Your task to perform on an android device: Do I have any events today? Image 0: 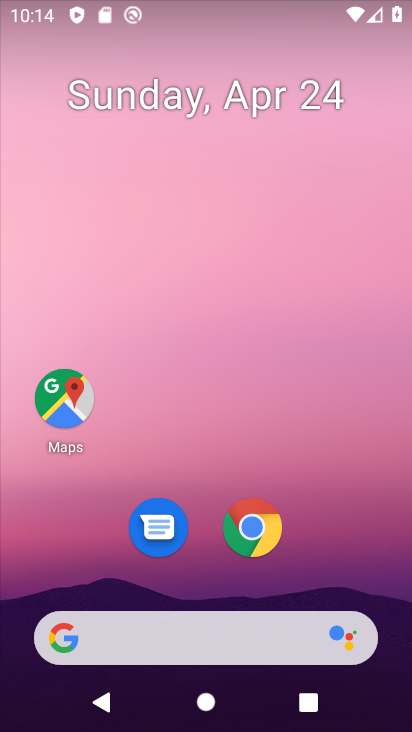
Step 0: drag from (207, 442) to (270, 31)
Your task to perform on an android device: Do I have any events today? Image 1: 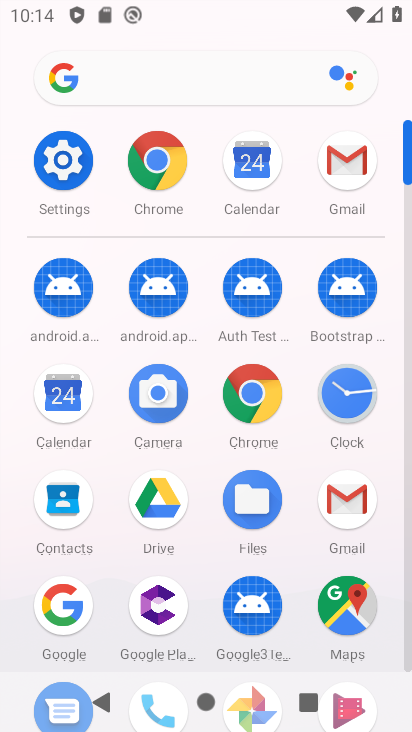
Step 1: click (71, 403)
Your task to perform on an android device: Do I have any events today? Image 2: 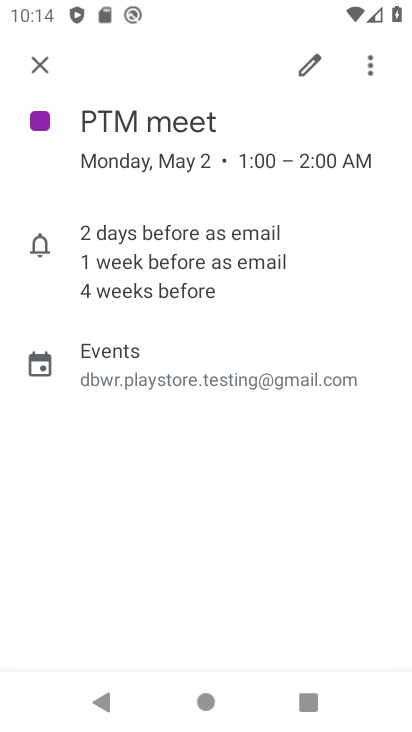
Step 2: click (47, 61)
Your task to perform on an android device: Do I have any events today? Image 3: 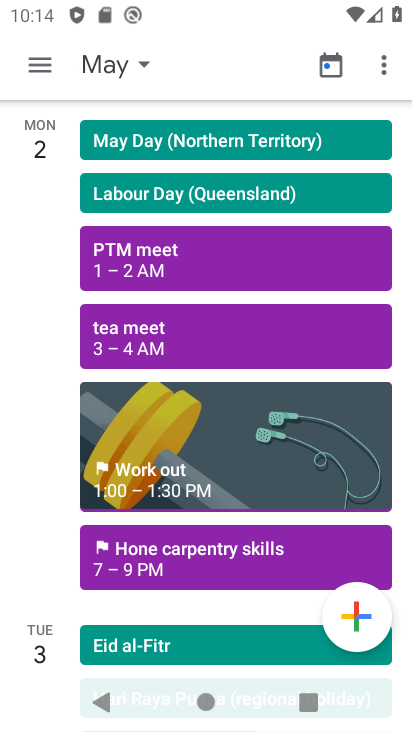
Step 3: click (123, 65)
Your task to perform on an android device: Do I have any events today? Image 4: 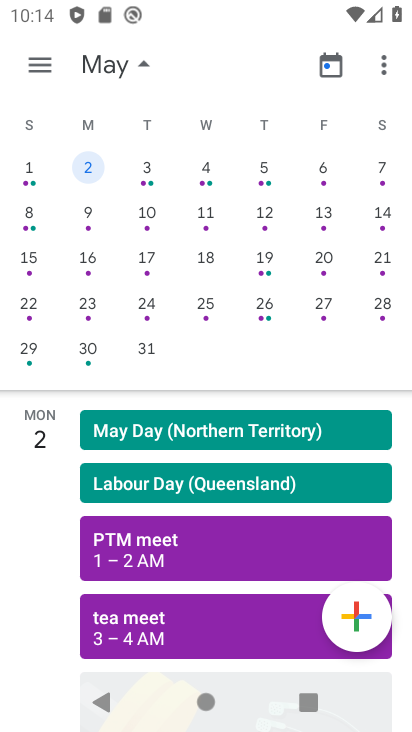
Step 4: drag from (118, 273) to (357, 267)
Your task to perform on an android device: Do I have any events today? Image 5: 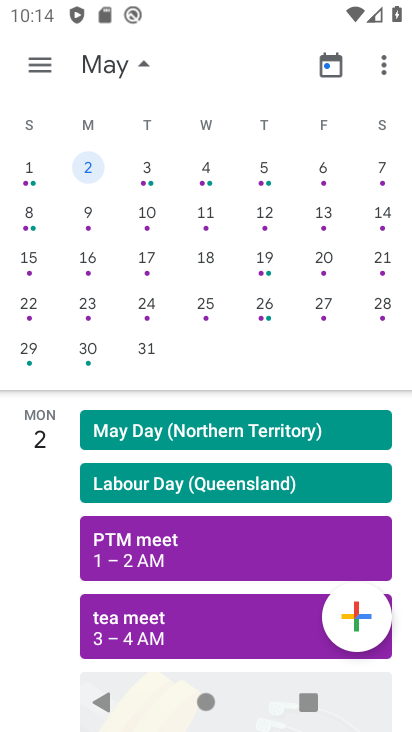
Step 5: drag from (23, 231) to (383, 261)
Your task to perform on an android device: Do I have any events today? Image 6: 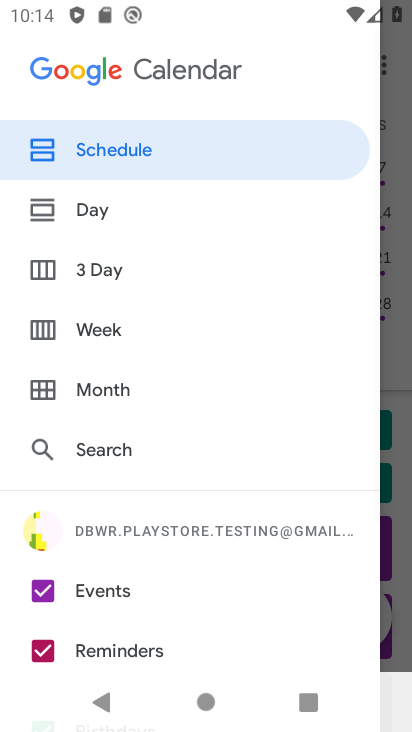
Step 6: drag from (397, 262) to (201, 267)
Your task to perform on an android device: Do I have any events today? Image 7: 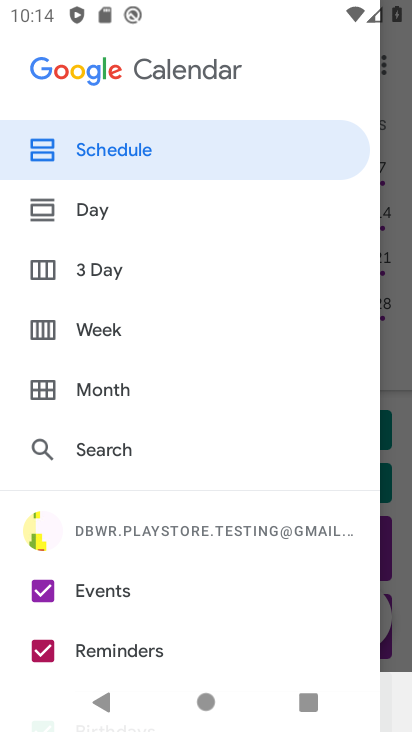
Step 7: click (390, 297)
Your task to perform on an android device: Do I have any events today? Image 8: 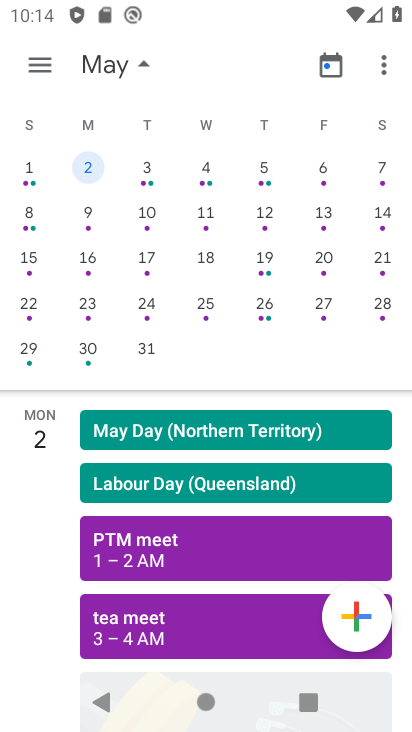
Step 8: drag from (7, 260) to (368, 266)
Your task to perform on an android device: Do I have any events today? Image 9: 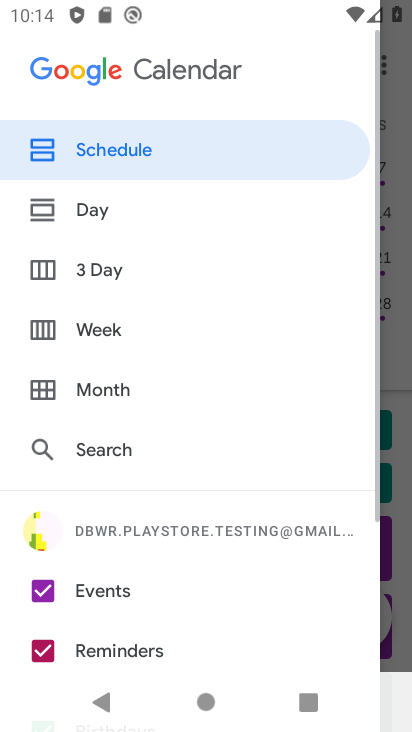
Step 9: drag from (364, 269) to (51, 274)
Your task to perform on an android device: Do I have any events today? Image 10: 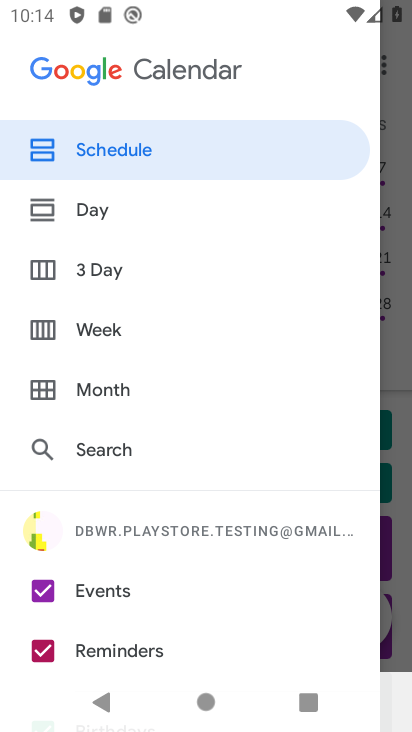
Step 10: click (126, 154)
Your task to perform on an android device: Do I have any events today? Image 11: 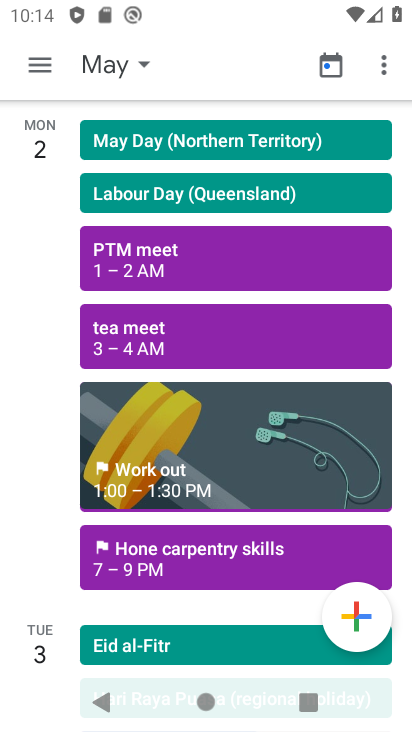
Step 11: drag from (222, 158) to (173, 597)
Your task to perform on an android device: Do I have any events today? Image 12: 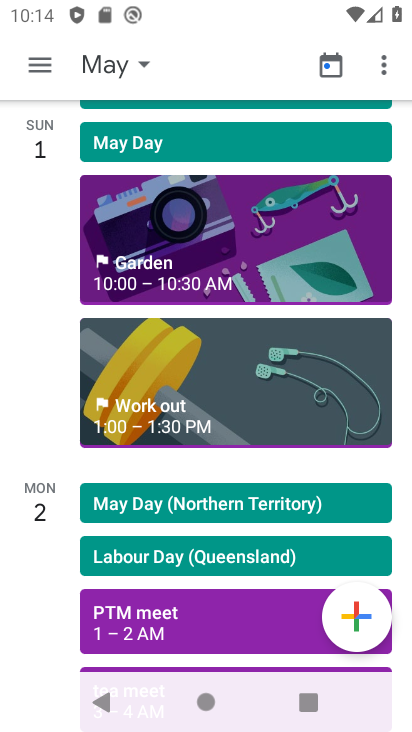
Step 12: click (128, 66)
Your task to perform on an android device: Do I have any events today? Image 13: 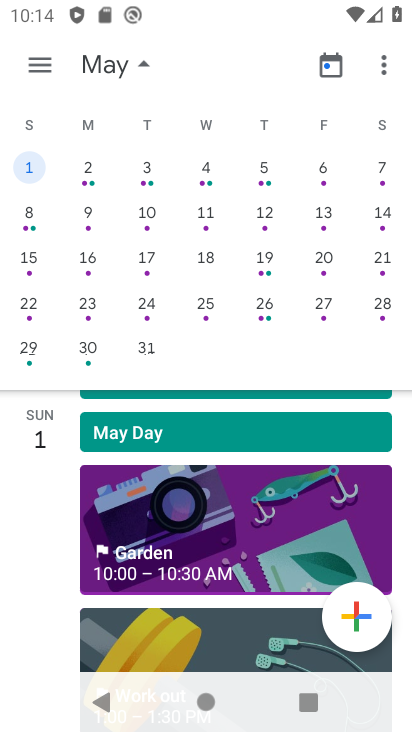
Step 13: drag from (39, 261) to (372, 288)
Your task to perform on an android device: Do I have any events today? Image 14: 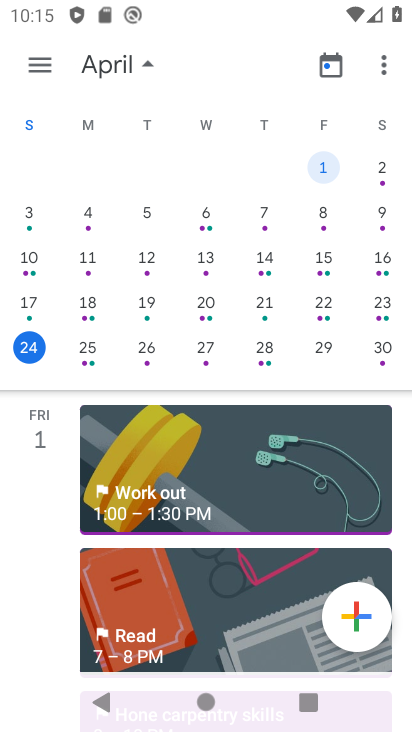
Step 14: click (33, 338)
Your task to perform on an android device: Do I have any events today? Image 15: 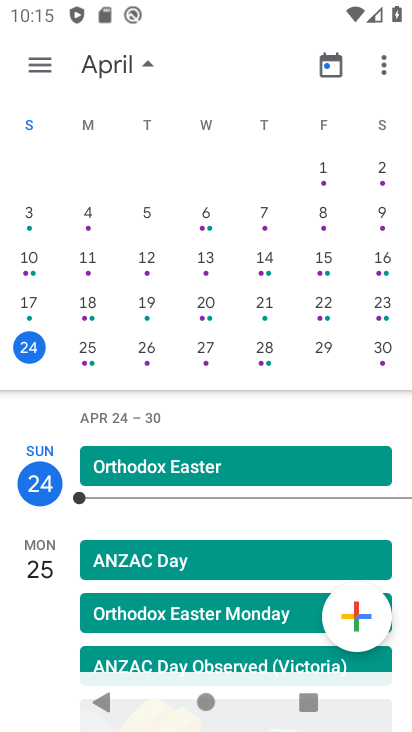
Step 15: click (89, 350)
Your task to perform on an android device: Do I have any events today? Image 16: 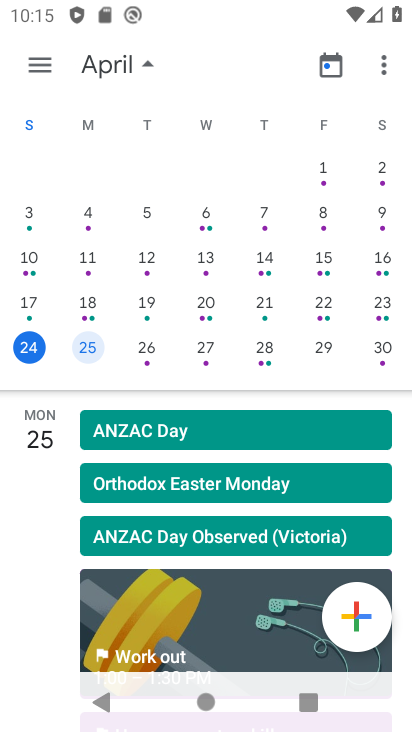
Step 16: drag from (205, 566) to (257, 254)
Your task to perform on an android device: Do I have any events today? Image 17: 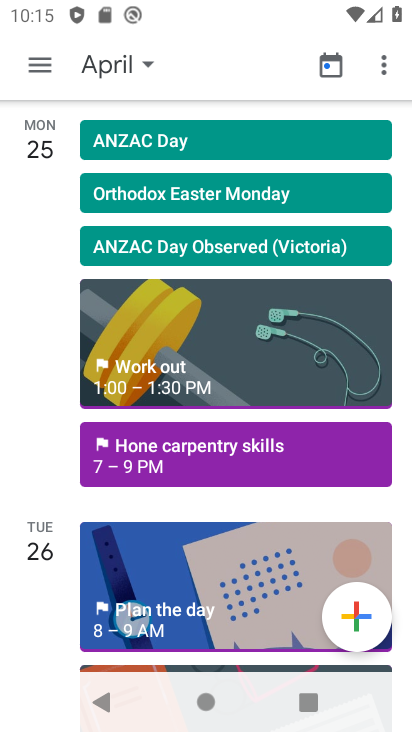
Step 17: click (173, 450)
Your task to perform on an android device: Do I have any events today? Image 18: 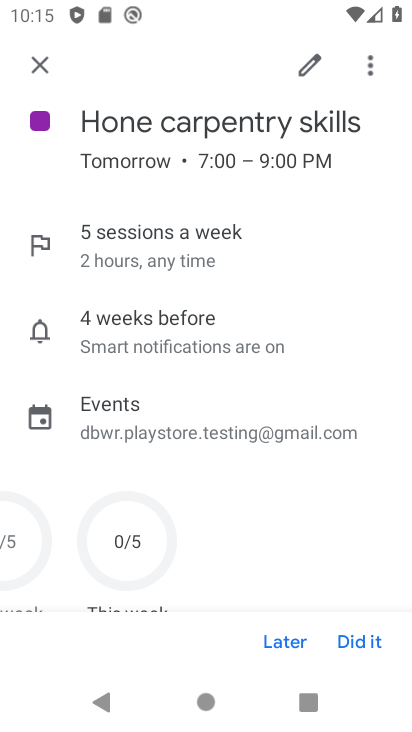
Step 18: task complete